Your task to perform on an android device: Show the shopping cart on bestbuy. Search for "razer blade" on bestbuy, select the first entry, and add it to the cart. Image 0: 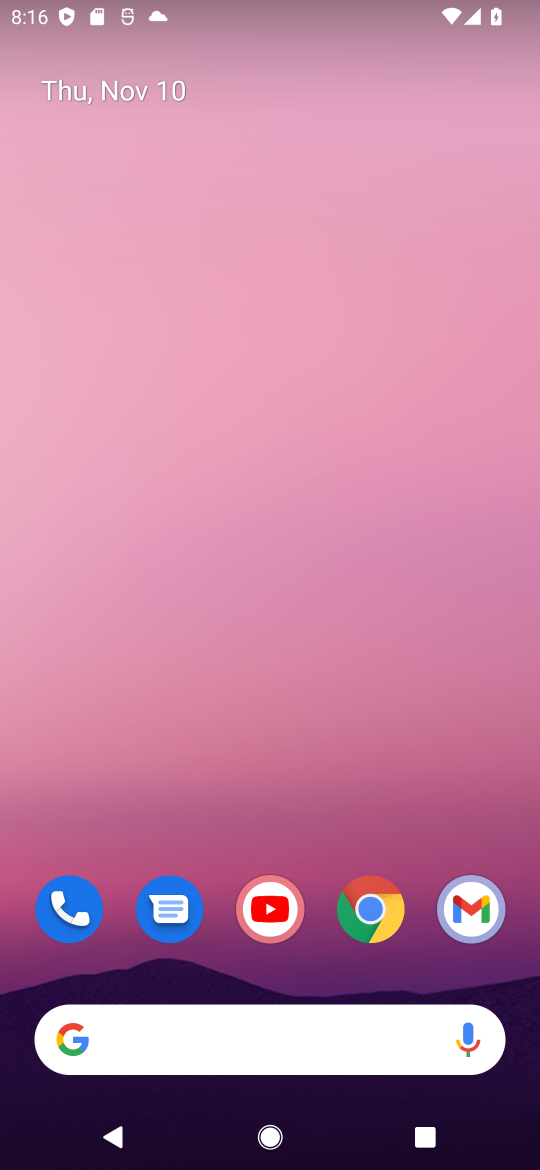
Step 0: drag from (129, 1002) to (264, 275)
Your task to perform on an android device: Show the shopping cart on bestbuy. Search for "razer blade" on bestbuy, select the first entry, and add it to the cart. Image 1: 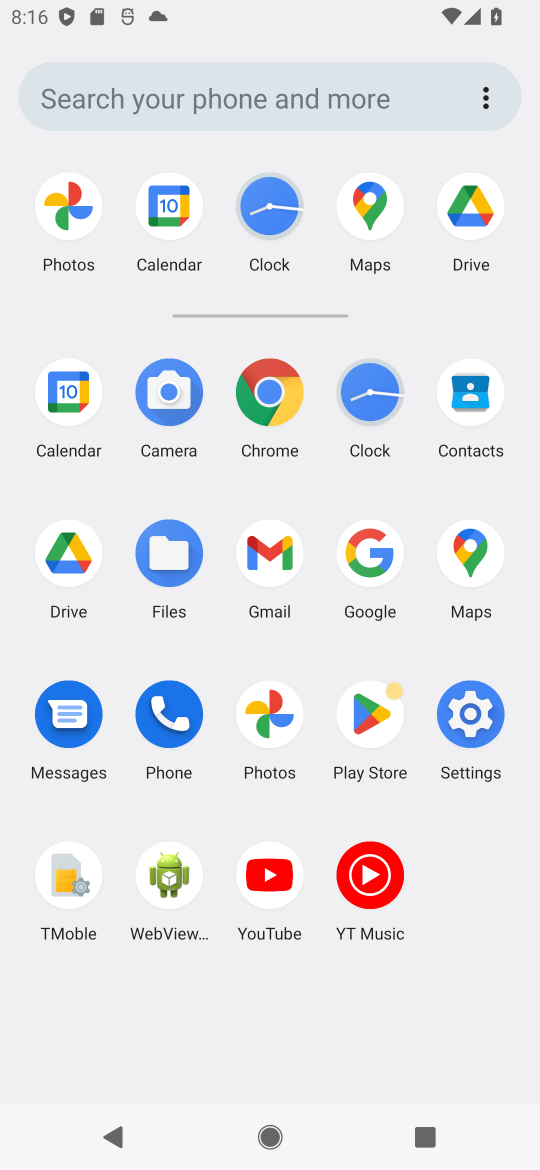
Step 1: click (373, 541)
Your task to perform on an android device: Show the shopping cart on bestbuy. Search for "razer blade" on bestbuy, select the first entry, and add it to the cart. Image 2: 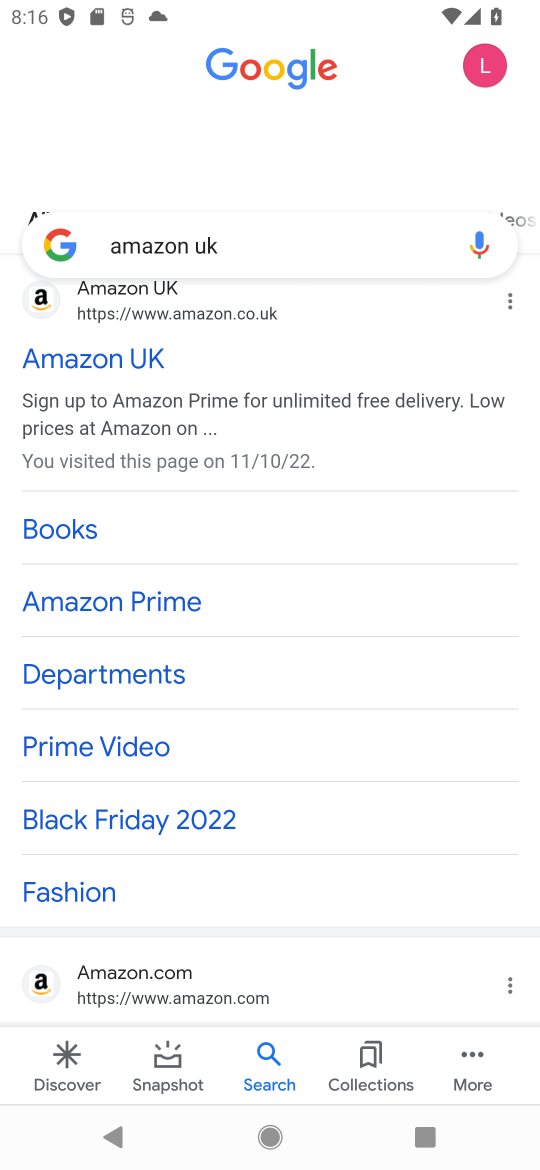
Step 2: click (357, 233)
Your task to perform on an android device: Show the shopping cart on bestbuy. Search for "razer blade" on bestbuy, select the first entry, and add it to the cart. Image 3: 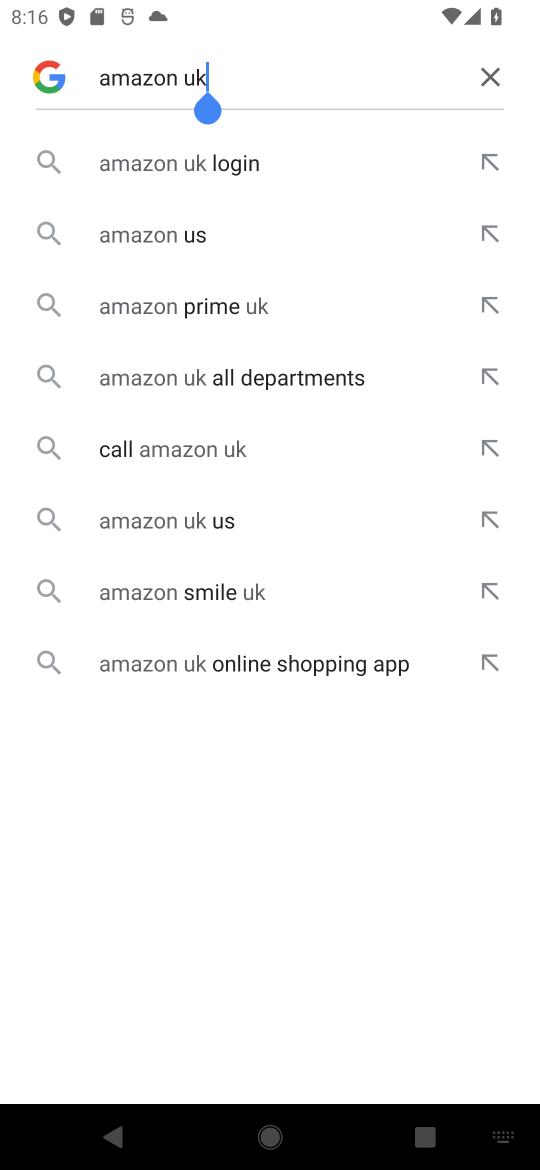
Step 3: click (505, 70)
Your task to perform on an android device: Show the shopping cart on bestbuy. Search for "razer blade" on bestbuy, select the first entry, and add it to the cart. Image 4: 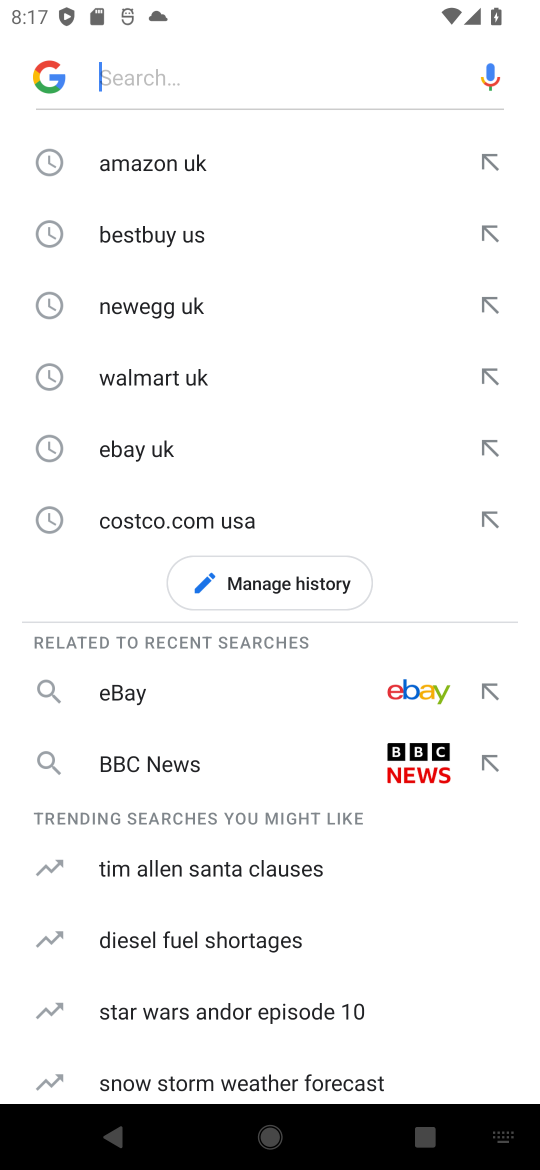
Step 4: click (231, 69)
Your task to perform on an android device: Show the shopping cart on bestbuy. Search for "razer blade" on bestbuy, select the first entry, and add it to the cart. Image 5: 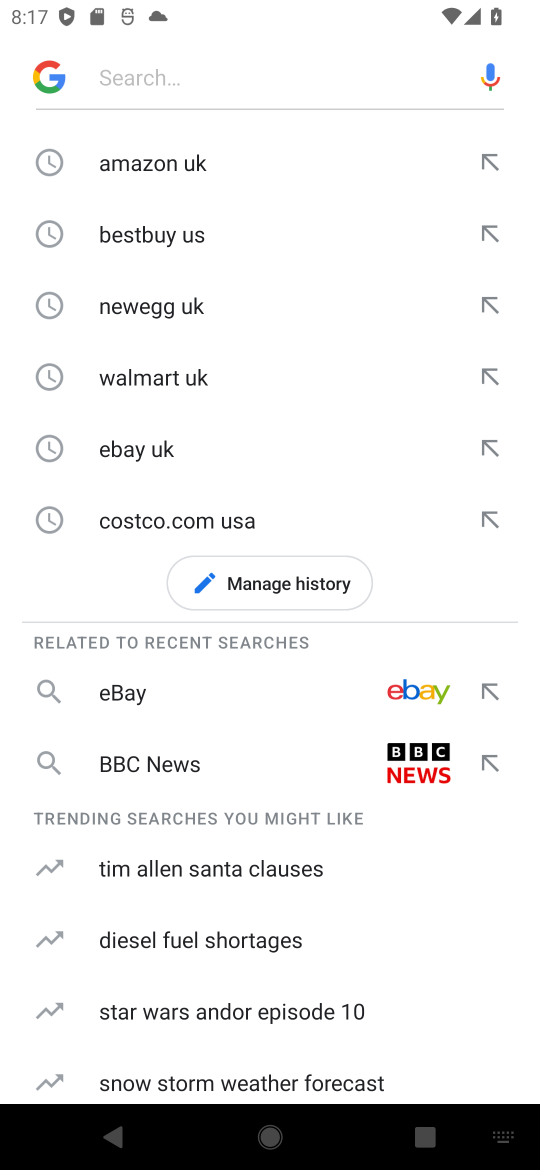
Step 5: type "bestbuy "
Your task to perform on an android device: Show the shopping cart on bestbuy. Search for "razer blade" on bestbuy, select the first entry, and add it to the cart. Image 6: 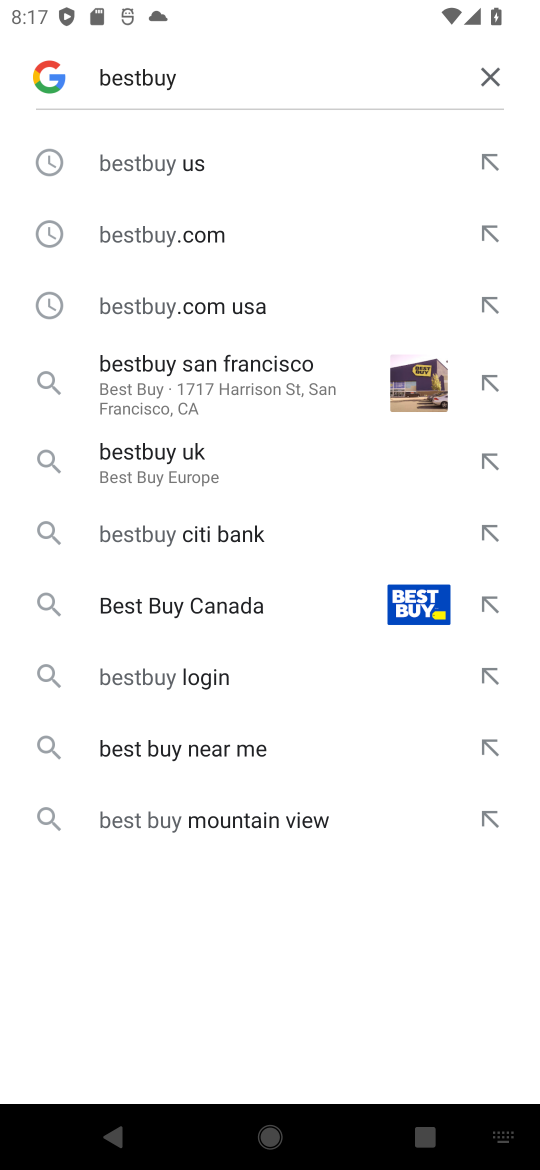
Step 6: click (148, 170)
Your task to perform on an android device: Show the shopping cart on bestbuy. Search for "razer blade" on bestbuy, select the first entry, and add it to the cart. Image 7: 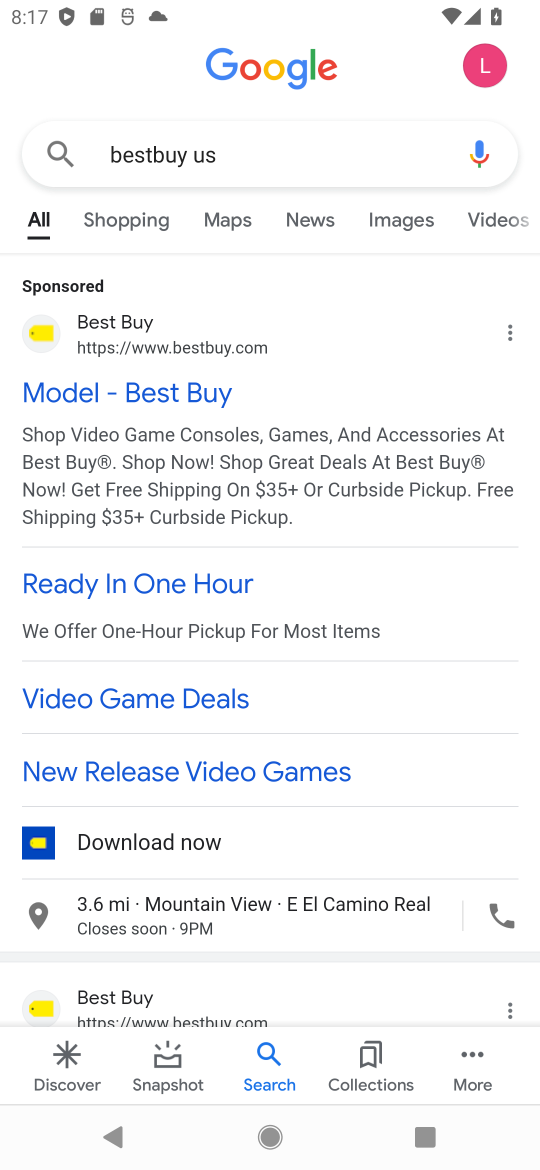
Step 7: click (44, 332)
Your task to perform on an android device: Show the shopping cart on bestbuy. Search for "razer blade" on bestbuy, select the first entry, and add it to the cart. Image 8: 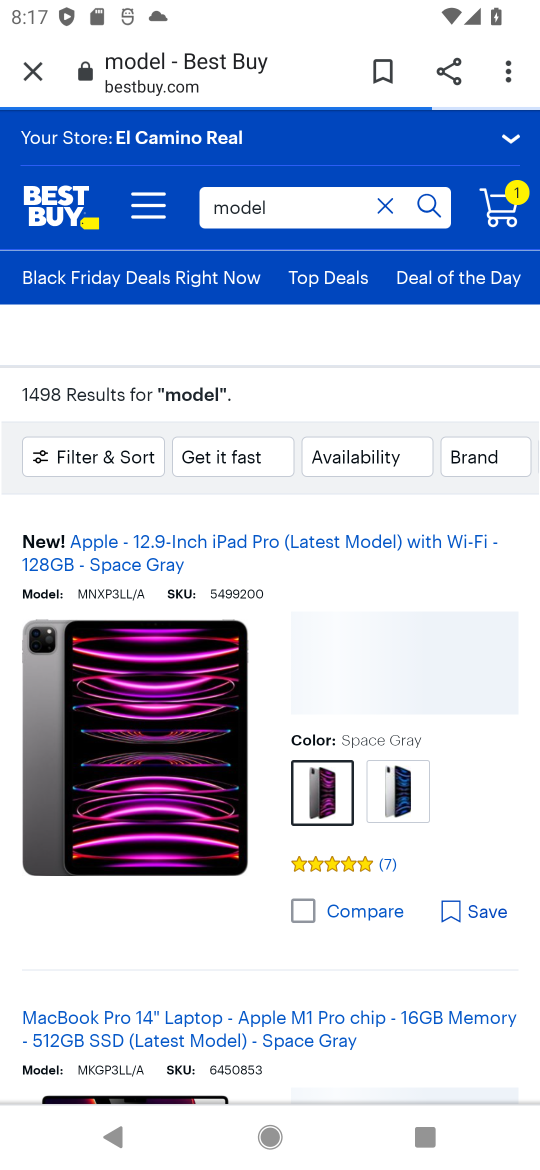
Step 8: click (315, 198)
Your task to perform on an android device: Show the shopping cart on bestbuy. Search for "razer blade" on bestbuy, select the first entry, and add it to the cart. Image 9: 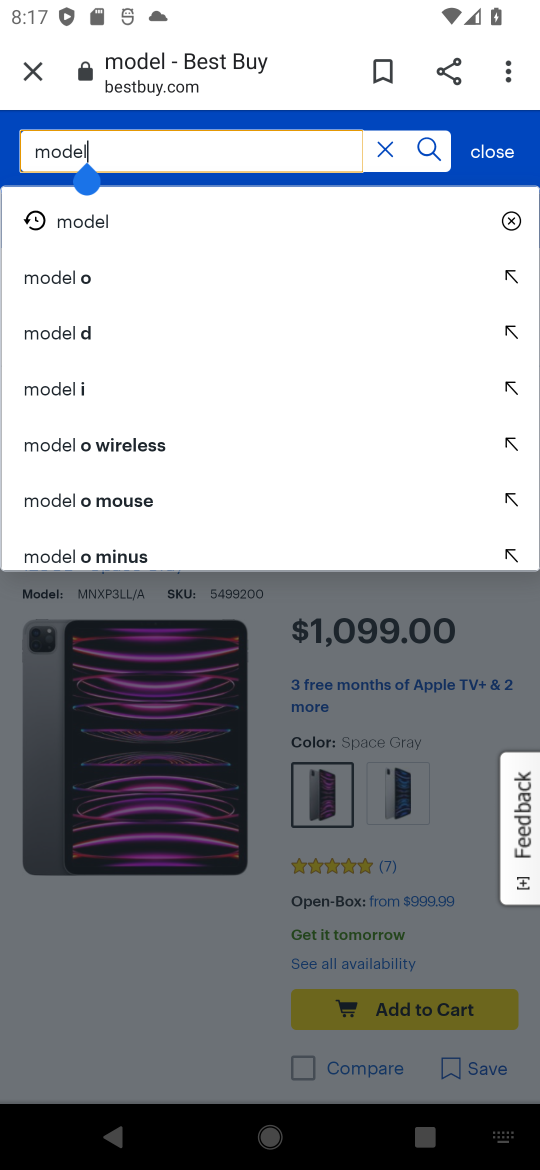
Step 9: click (369, 151)
Your task to perform on an android device: Show the shopping cart on bestbuy. Search for "razer blade" on bestbuy, select the first entry, and add it to the cart. Image 10: 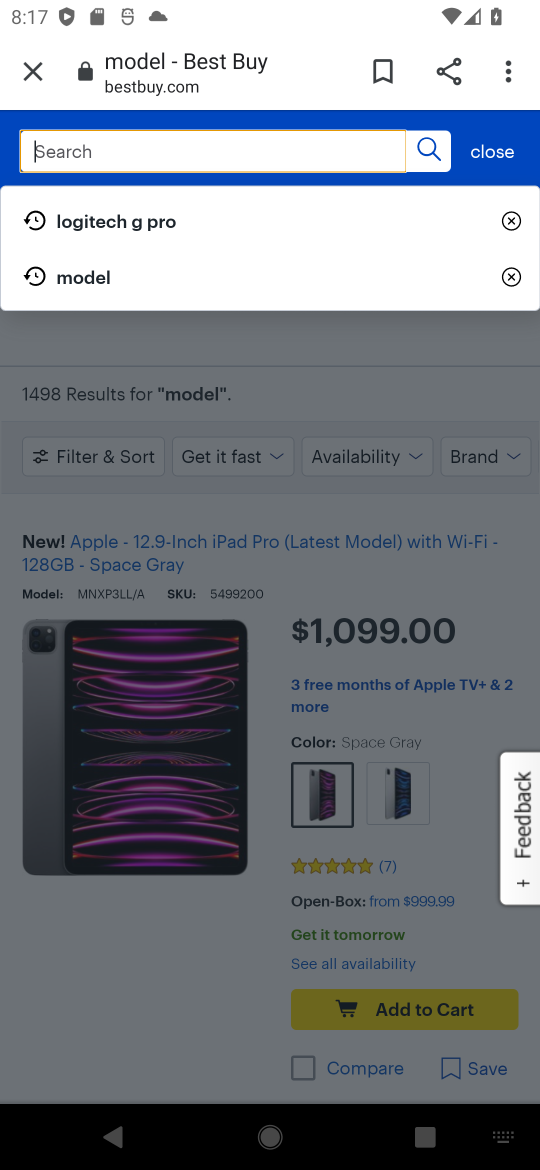
Step 10: click (239, 149)
Your task to perform on an android device: Show the shopping cart on bestbuy. Search for "razer blade" on bestbuy, select the first entry, and add it to the cart. Image 11: 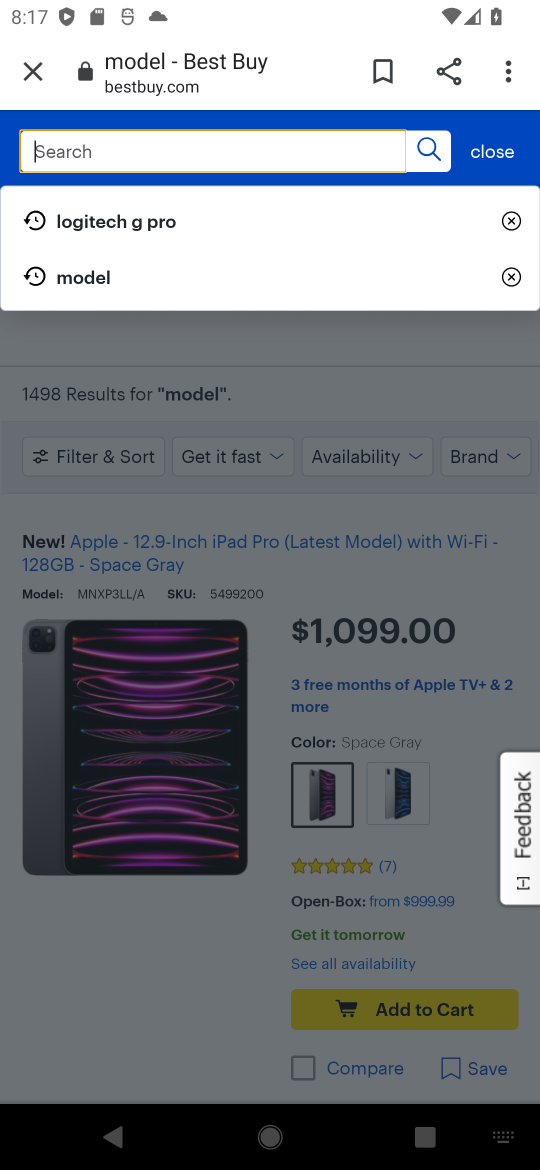
Step 11: type "bestbuy "
Your task to perform on an android device: Show the shopping cart on bestbuy. Search for "razer blade" on bestbuy, select the first entry, and add it to the cart. Image 12: 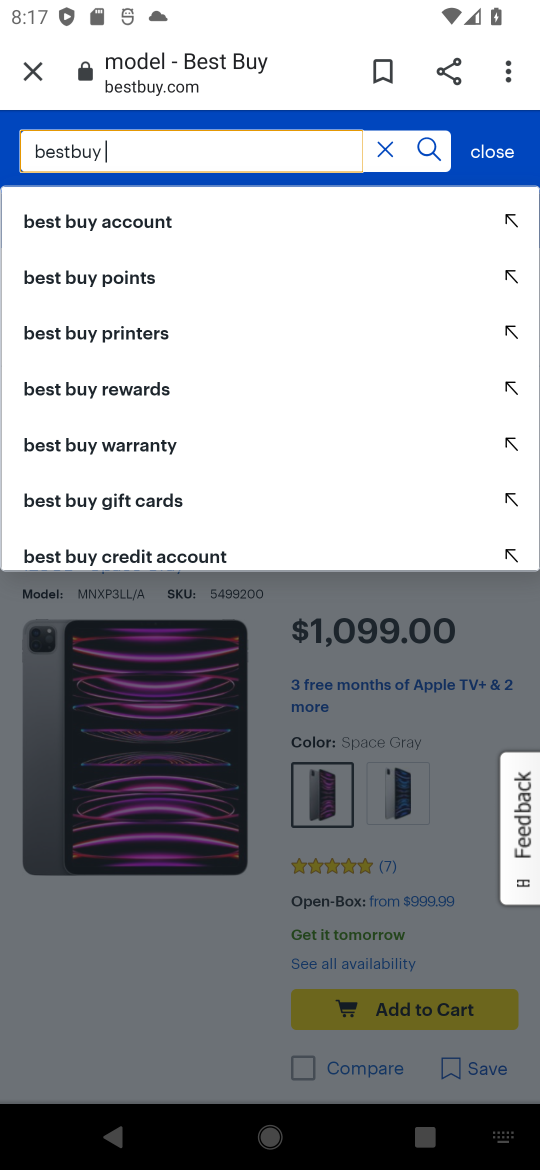
Step 12: click (425, 159)
Your task to perform on an android device: Show the shopping cart on bestbuy. Search for "razer blade" on bestbuy, select the first entry, and add it to the cart. Image 13: 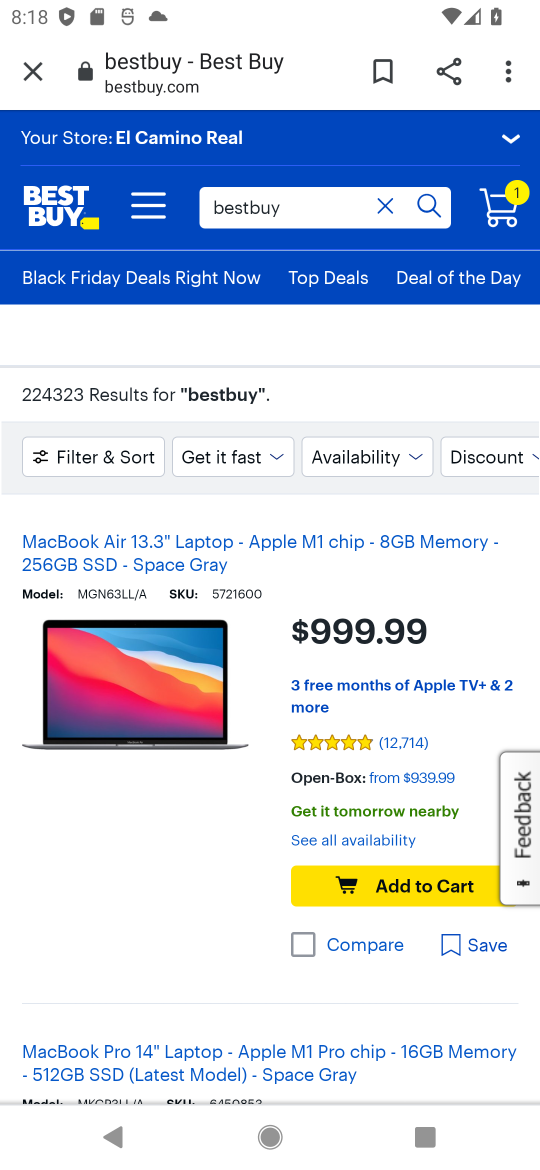
Step 13: click (406, 881)
Your task to perform on an android device: Show the shopping cart on bestbuy. Search for "razer blade" on bestbuy, select the first entry, and add it to the cart. Image 14: 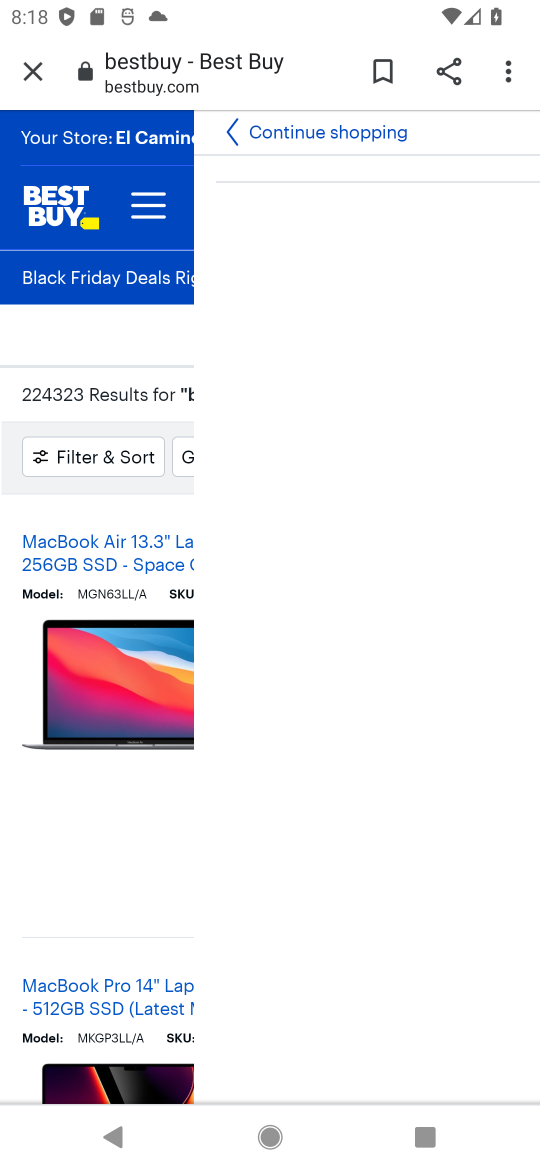
Step 14: click (393, 857)
Your task to perform on an android device: Show the shopping cart on bestbuy. Search for "razer blade" on bestbuy, select the first entry, and add it to the cart. Image 15: 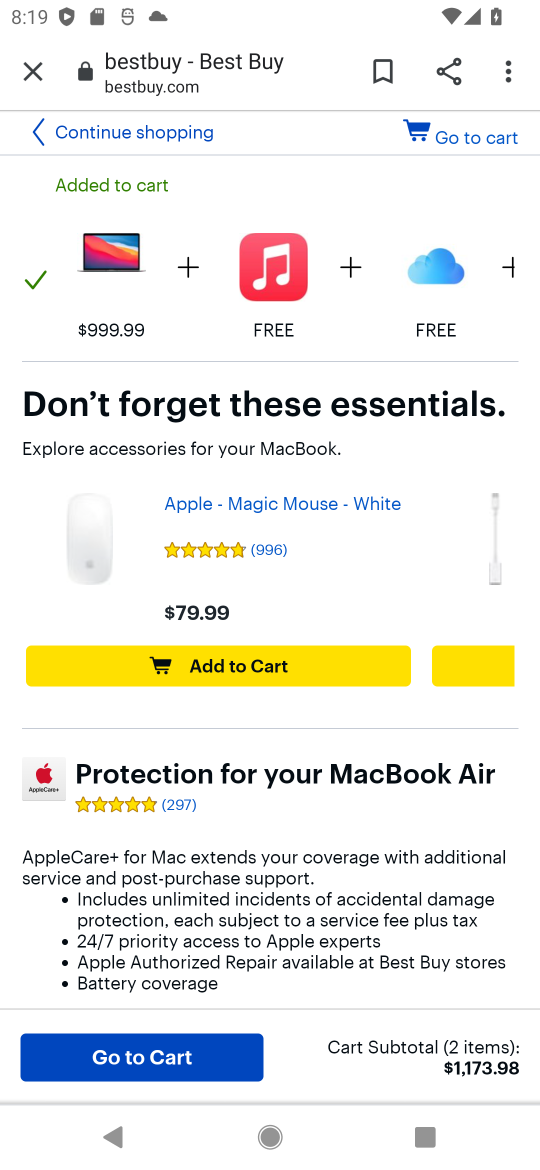
Step 15: task complete